Your task to perform on an android device: toggle show notifications on the lock screen Image 0: 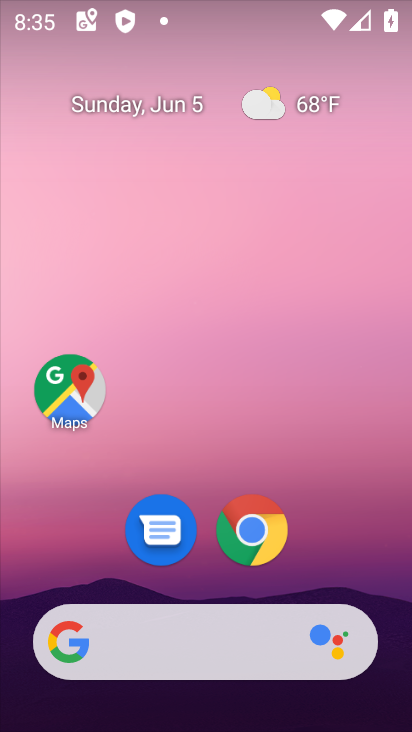
Step 0: drag from (394, 636) to (350, 90)
Your task to perform on an android device: toggle show notifications on the lock screen Image 1: 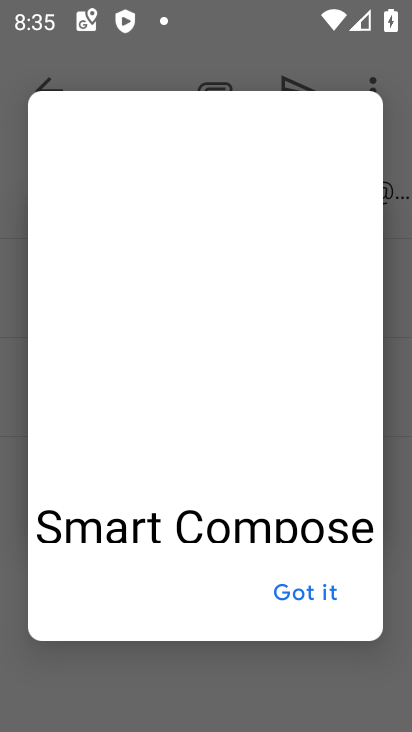
Step 1: press home button
Your task to perform on an android device: toggle show notifications on the lock screen Image 2: 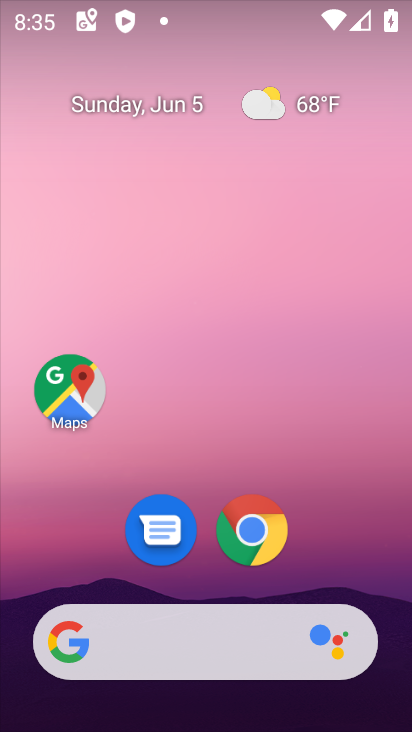
Step 2: drag from (397, 635) to (346, 26)
Your task to perform on an android device: toggle show notifications on the lock screen Image 3: 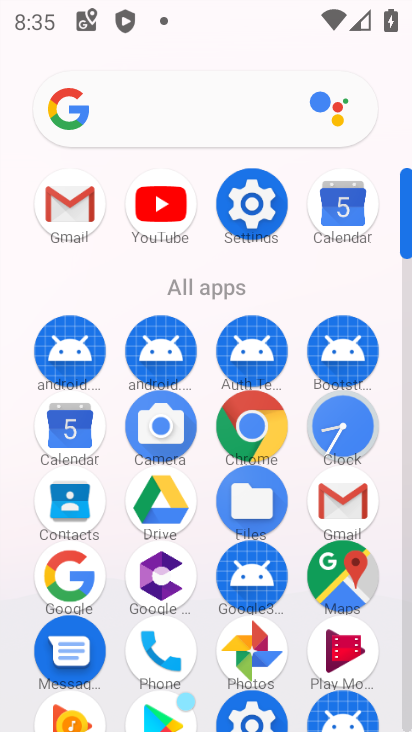
Step 3: click (405, 683)
Your task to perform on an android device: toggle show notifications on the lock screen Image 4: 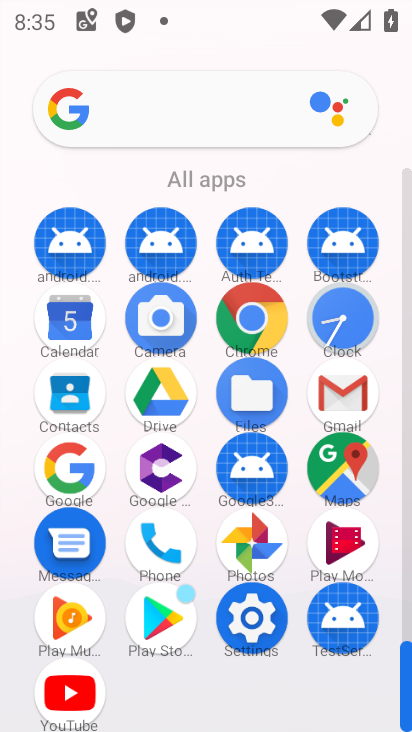
Step 4: click (255, 615)
Your task to perform on an android device: toggle show notifications on the lock screen Image 5: 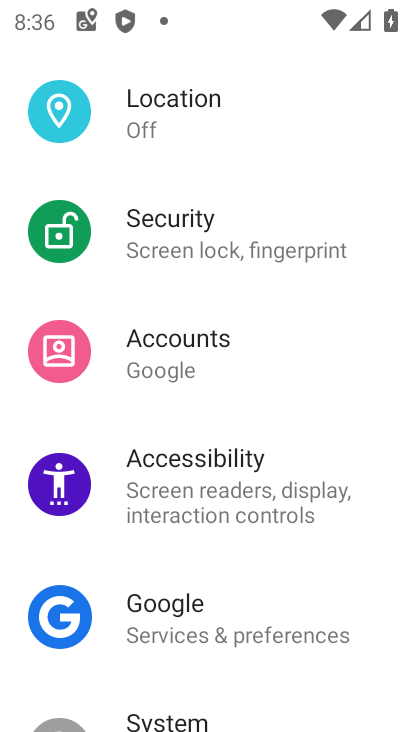
Step 5: drag from (332, 182) to (344, 511)
Your task to perform on an android device: toggle show notifications on the lock screen Image 6: 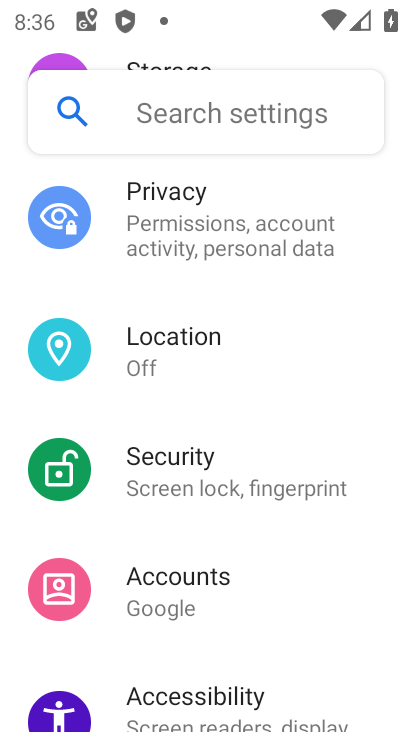
Step 6: drag from (346, 264) to (359, 633)
Your task to perform on an android device: toggle show notifications on the lock screen Image 7: 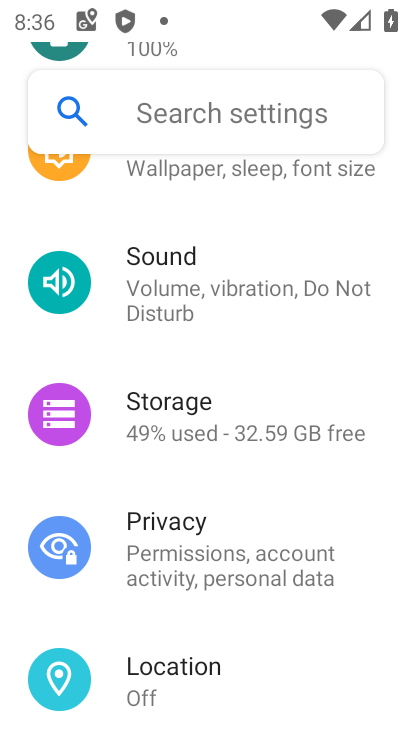
Step 7: drag from (350, 258) to (330, 540)
Your task to perform on an android device: toggle show notifications on the lock screen Image 8: 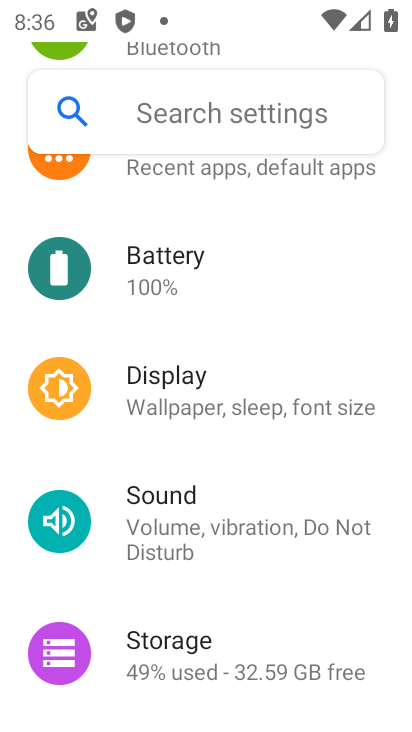
Step 8: drag from (332, 189) to (343, 459)
Your task to perform on an android device: toggle show notifications on the lock screen Image 9: 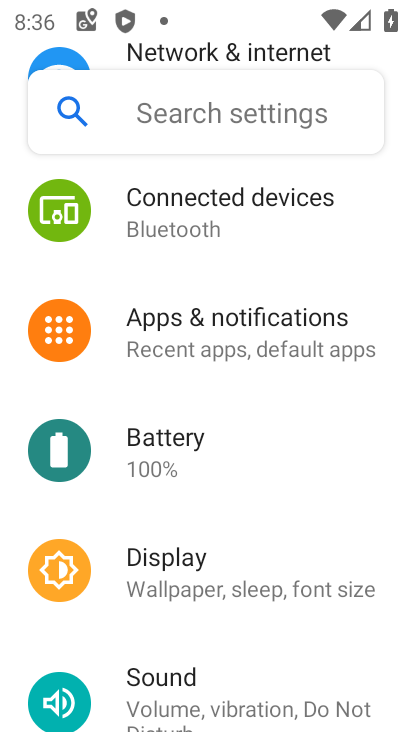
Step 9: click (166, 328)
Your task to perform on an android device: toggle show notifications on the lock screen Image 10: 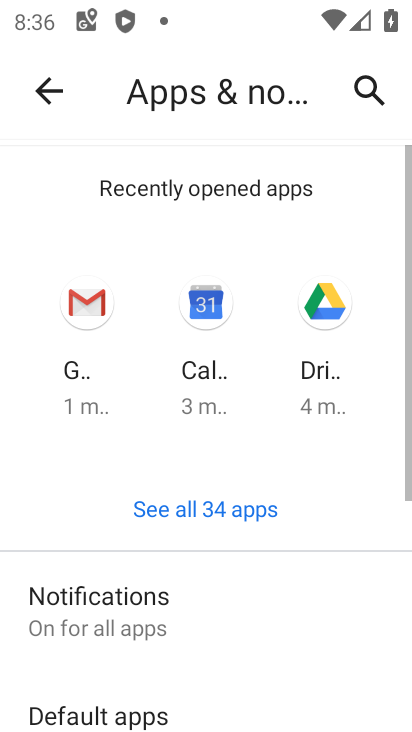
Step 10: drag from (300, 639) to (285, 302)
Your task to perform on an android device: toggle show notifications on the lock screen Image 11: 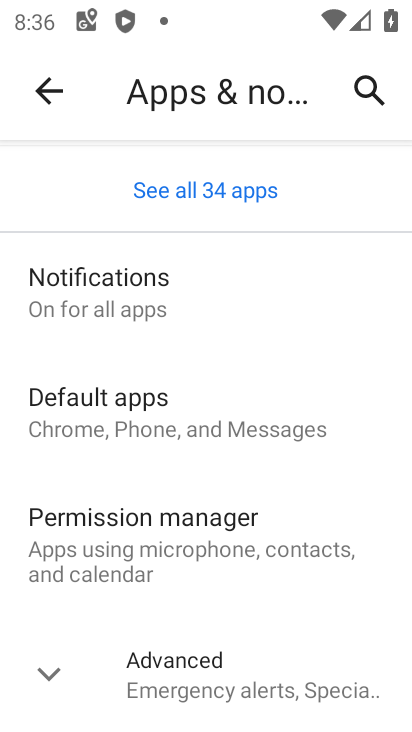
Step 11: click (93, 283)
Your task to perform on an android device: toggle show notifications on the lock screen Image 12: 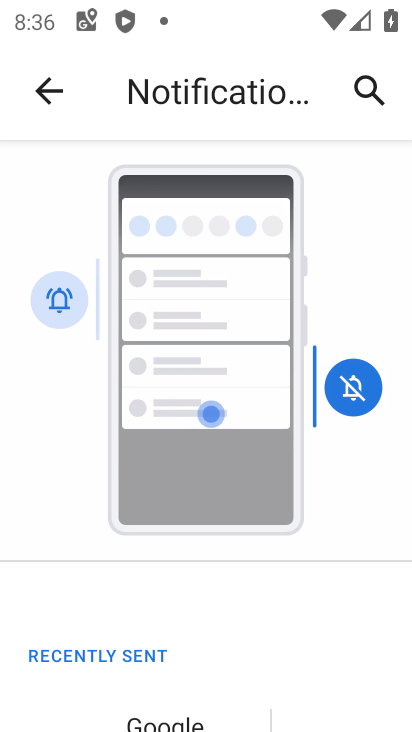
Step 12: drag from (305, 713) to (264, 105)
Your task to perform on an android device: toggle show notifications on the lock screen Image 13: 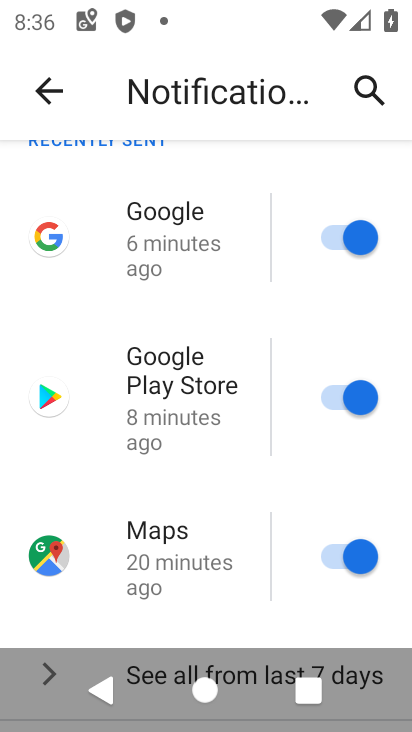
Step 13: drag from (274, 616) to (241, 102)
Your task to perform on an android device: toggle show notifications on the lock screen Image 14: 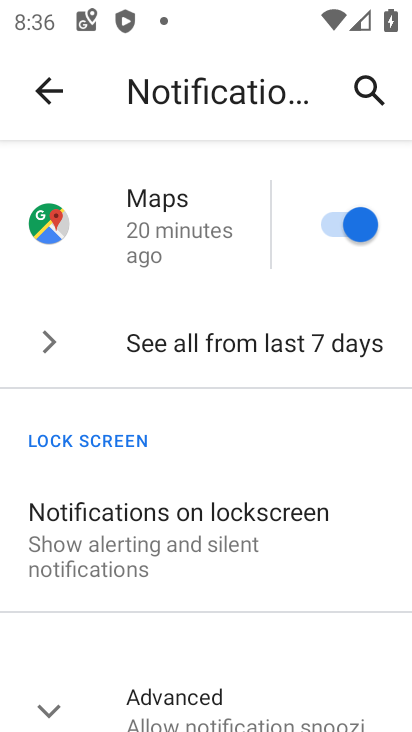
Step 14: click (132, 543)
Your task to perform on an android device: toggle show notifications on the lock screen Image 15: 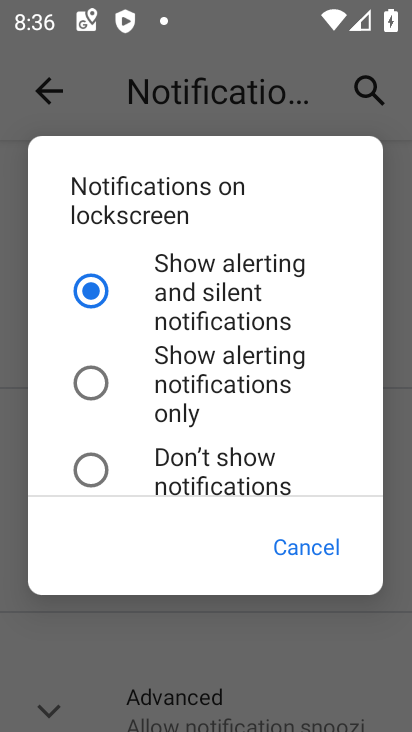
Step 15: click (87, 385)
Your task to perform on an android device: toggle show notifications on the lock screen Image 16: 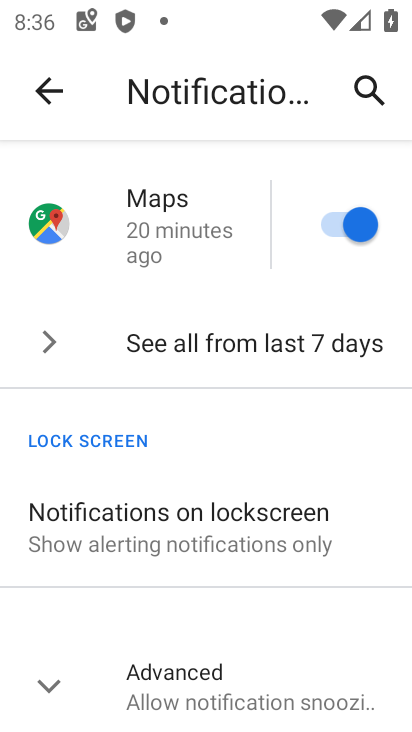
Step 16: task complete